Your task to perform on an android device: add a contact in the contacts app Image 0: 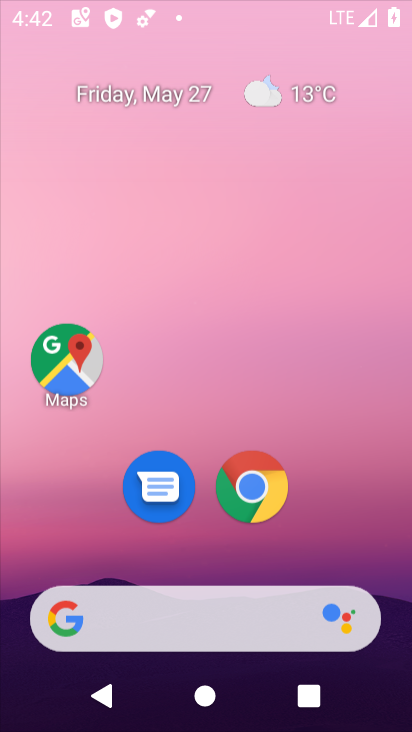
Step 0: click (329, 120)
Your task to perform on an android device: add a contact in the contacts app Image 1: 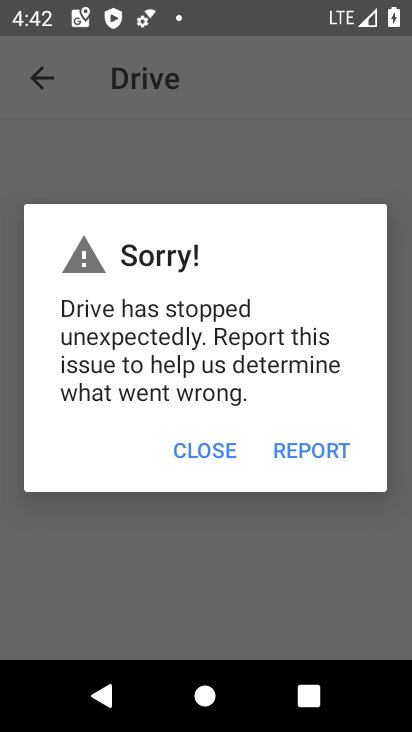
Step 1: press home button
Your task to perform on an android device: add a contact in the contacts app Image 2: 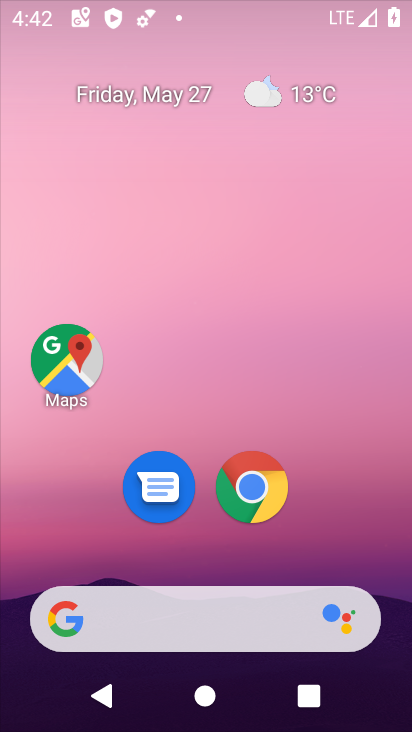
Step 2: drag from (317, 361) to (318, 157)
Your task to perform on an android device: add a contact in the contacts app Image 3: 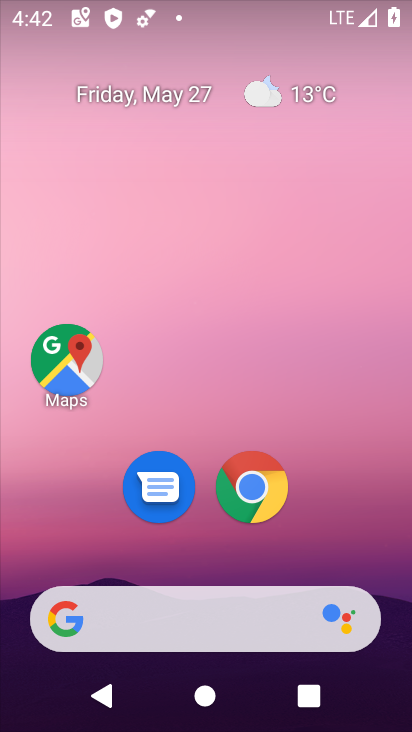
Step 3: drag from (319, 530) to (332, 143)
Your task to perform on an android device: add a contact in the contacts app Image 4: 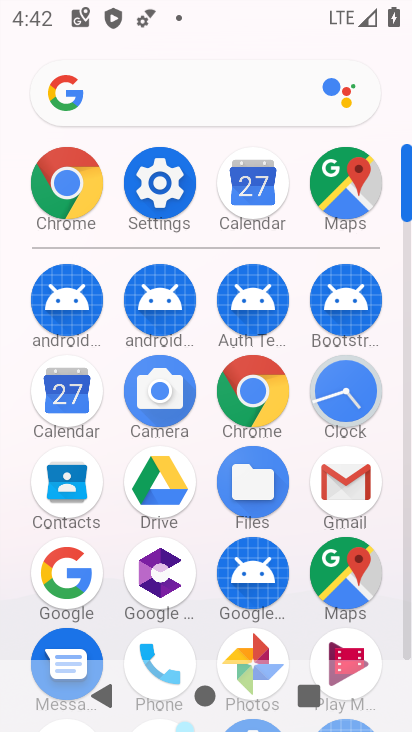
Step 4: click (82, 481)
Your task to perform on an android device: add a contact in the contacts app Image 5: 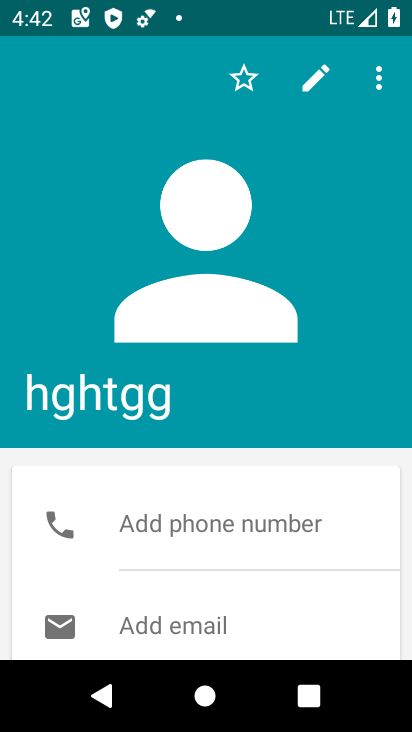
Step 5: press back button
Your task to perform on an android device: add a contact in the contacts app Image 6: 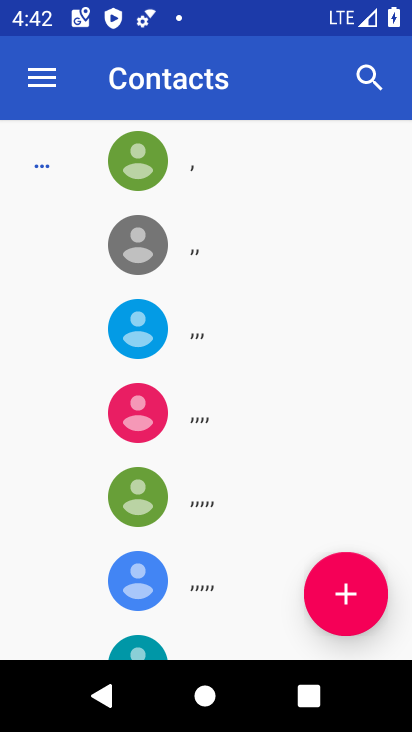
Step 6: click (348, 582)
Your task to perform on an android device: add a contact in the contacts app Image 7: 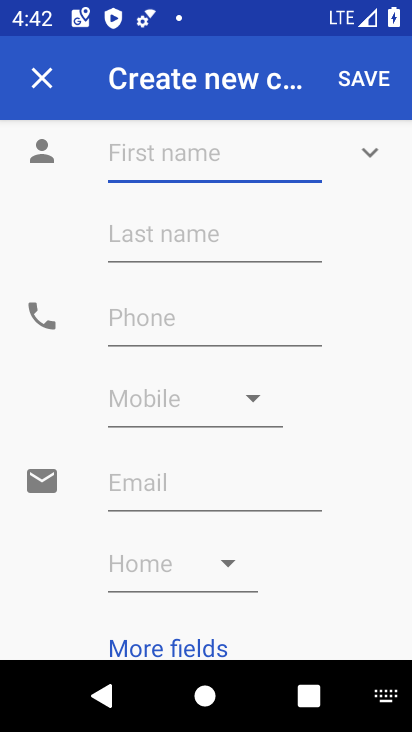
Step 7: type "emotion"
Your task to perform on an android device: add a contact in the contacts app Image 8: 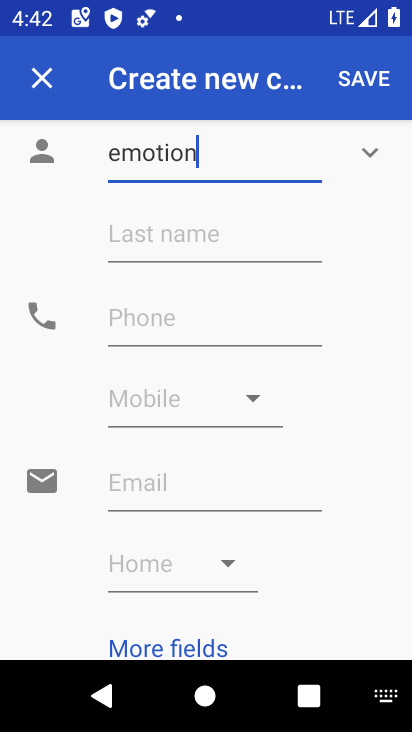
Step 8: click (370, 75)
Your task to perform on an android device: add a contact in the contacts app Image 9: 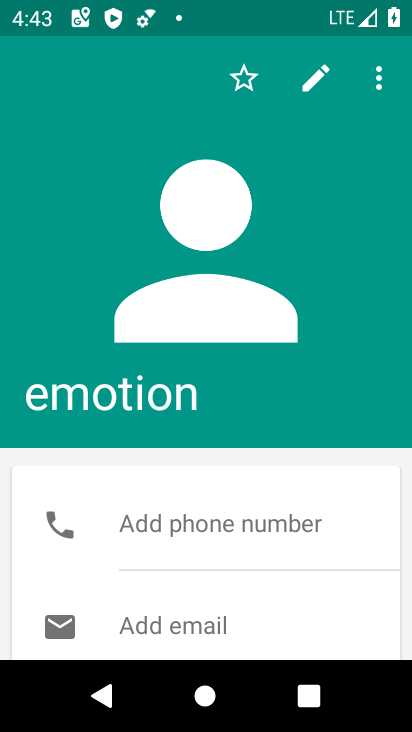
Step 9: task complete